Your task to perform on an android device: What's the weather going to be tomorrow? Image 0: 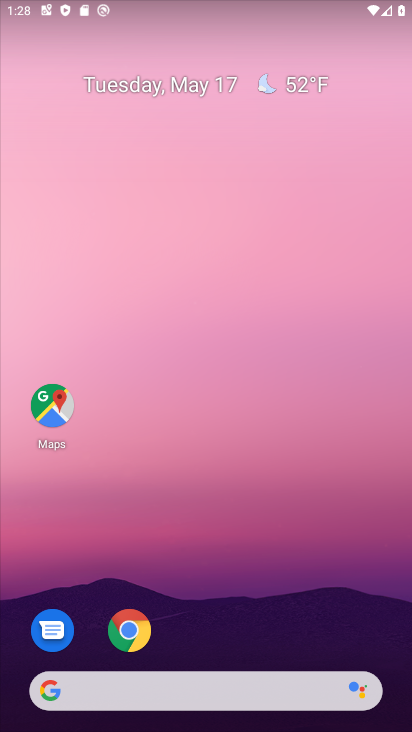
Step 0: click (266, 81)
Your task to perform on an android device: What's the weather going to be tomorrow? Image 1: 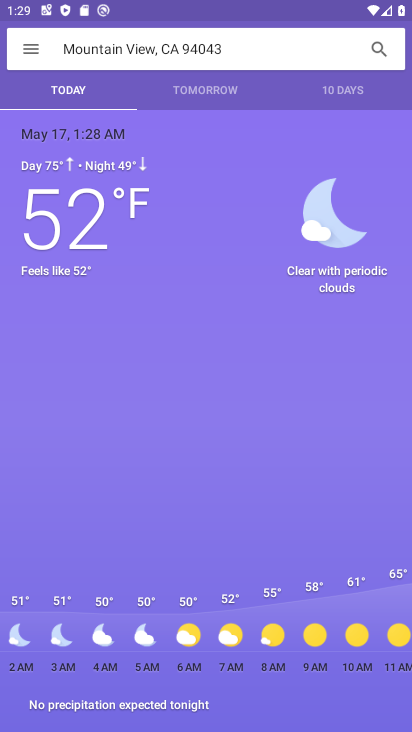
Step 1: click (187, 93)
Your task to perform on an android device: What's the weather going to be tomorrow? Image 2: 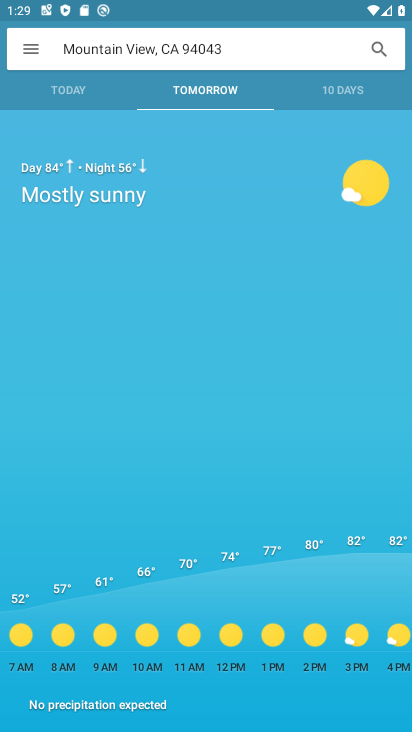
Step 2: task complete